Your task to perform on an android device: move a message to another label in the gmail app Image 0: 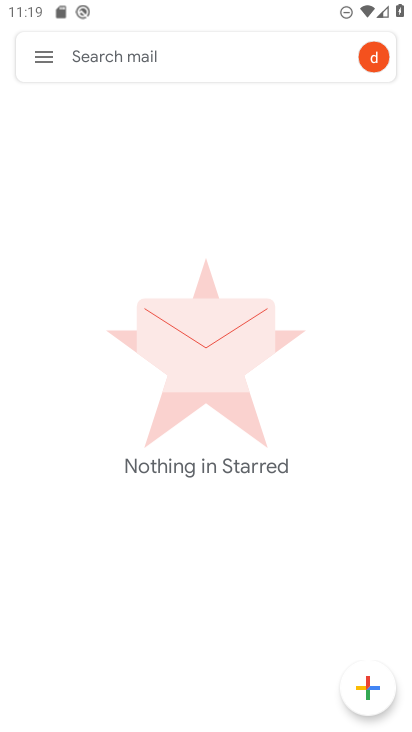
Step 0: press home button
Your task to perform on an android device: move a message to another label in the gmail app Image 1: 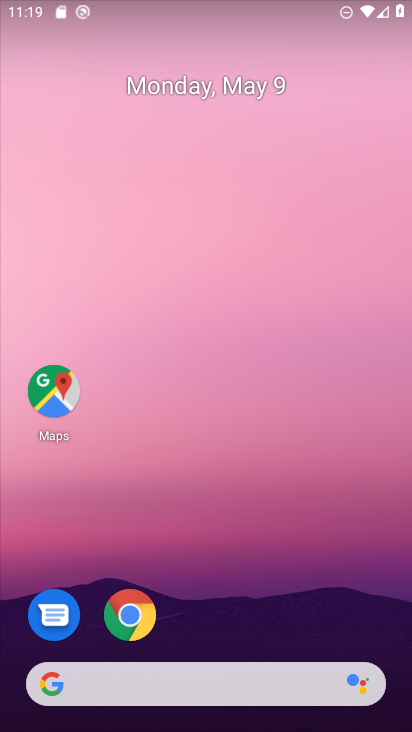
Step 1: drag from (294, 696) to (239, 239)
Your task to perform on an android device: move a message to another label in the gmail app Image 2: 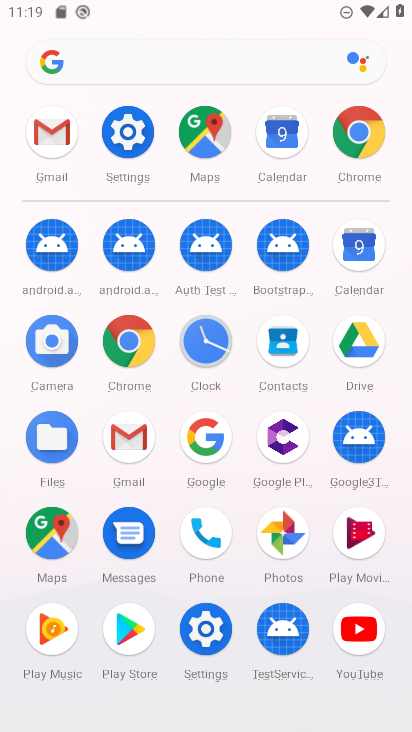
Step 2: click (65, 133)
Your task to perform on an android device: move a message to another label in the gmail app Image 3: 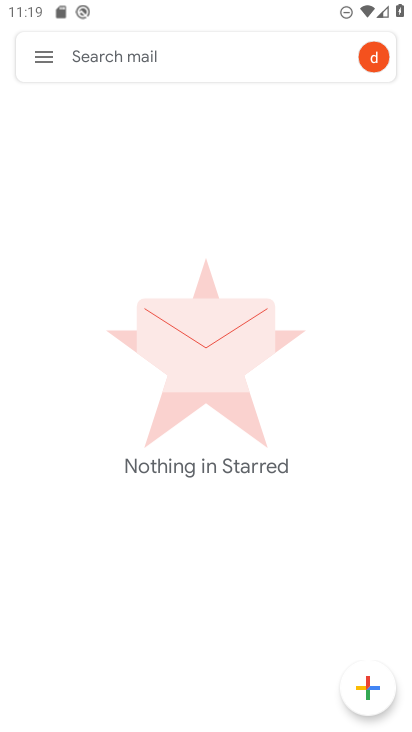
Step 3: click (42, 54)
Your task to perform on an android device: move a message to another label in the gmail app Image 4: 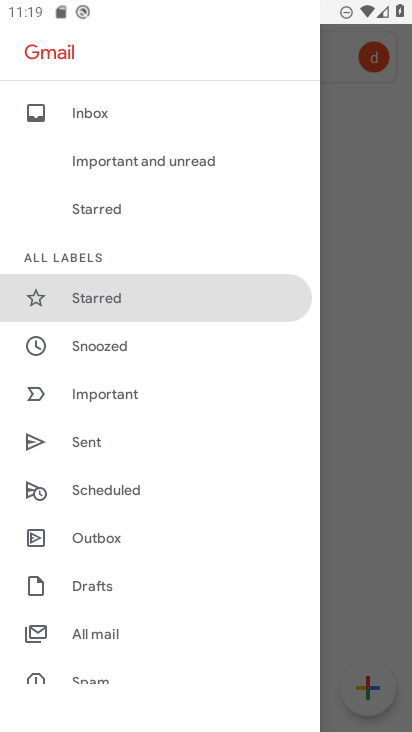
Step 4: drag from (159, 604) to (267, 280)
Your task to perform on an android device: move a message to another label in the gmail app Image 5: 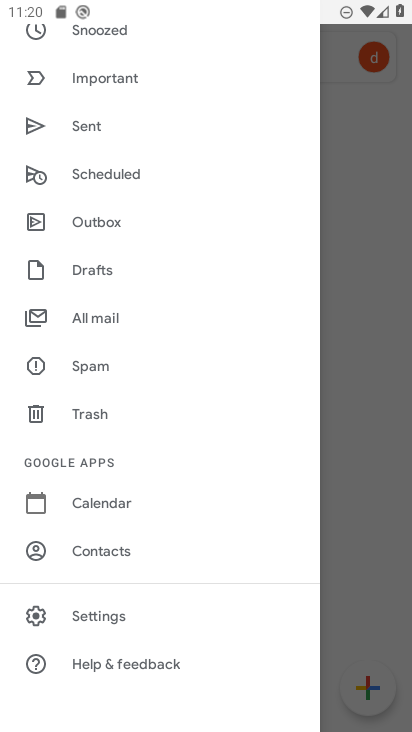
Step 5: click (142, 610)
Your task to perform on an android device: move a message to another label in the gmail app Image 6: 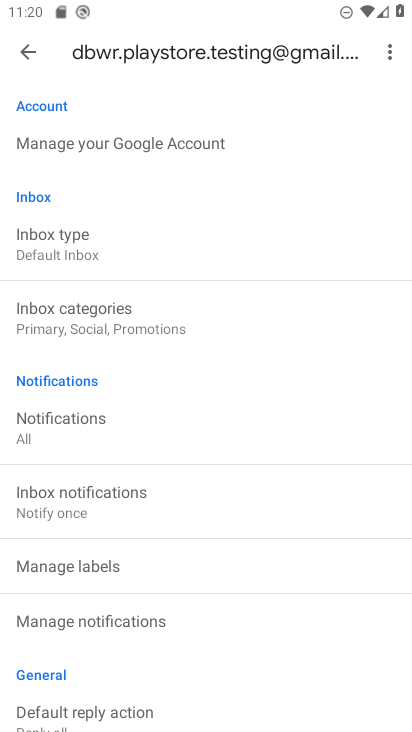
Step 6: drag from (142, 632) to (168, 555)
Your task to perform on an android device: move a message to another label in the gmail app Image 7: 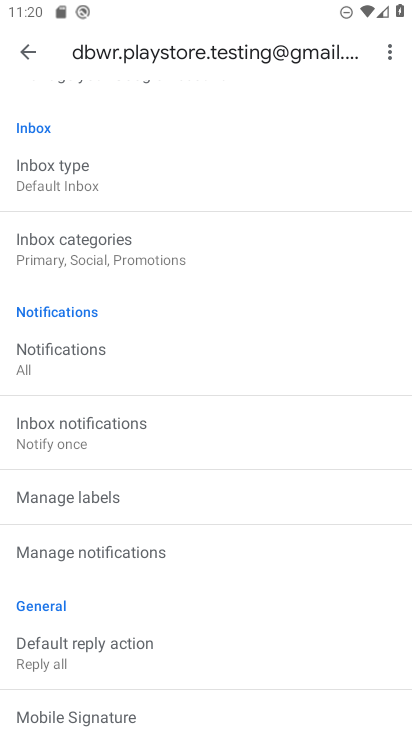
Step 7: click (82, 496)
Your task to perform on an android device: move a message to another label in the gmail app Image 8: 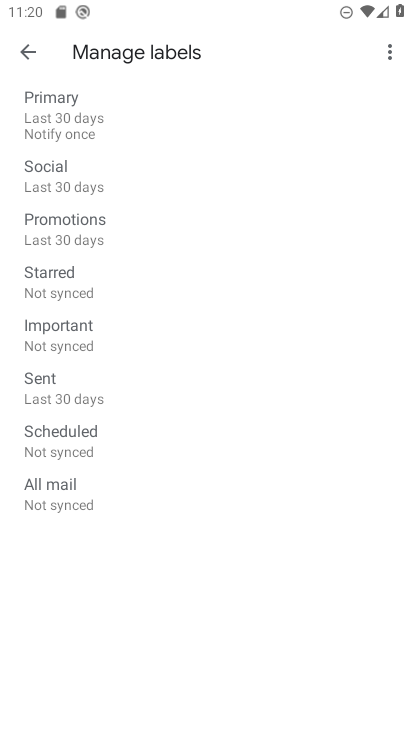
Step 8: click (93, 225)
Your task to perform on an android device: move a message to another label in the gmail app Image 9: 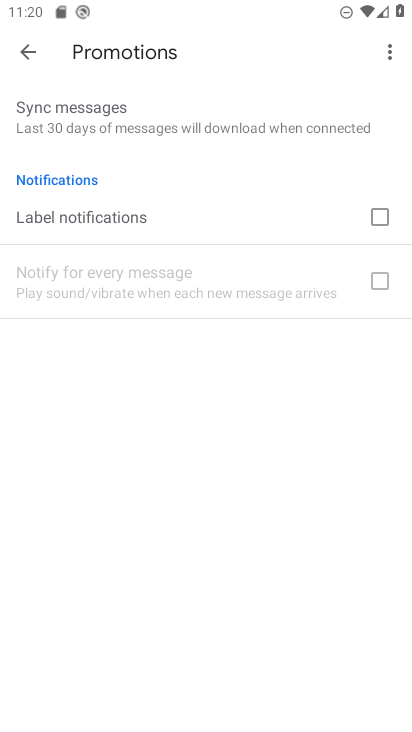
Step 9: task complete